Your task to perform on an android device: Open Wikipedia Image 0: 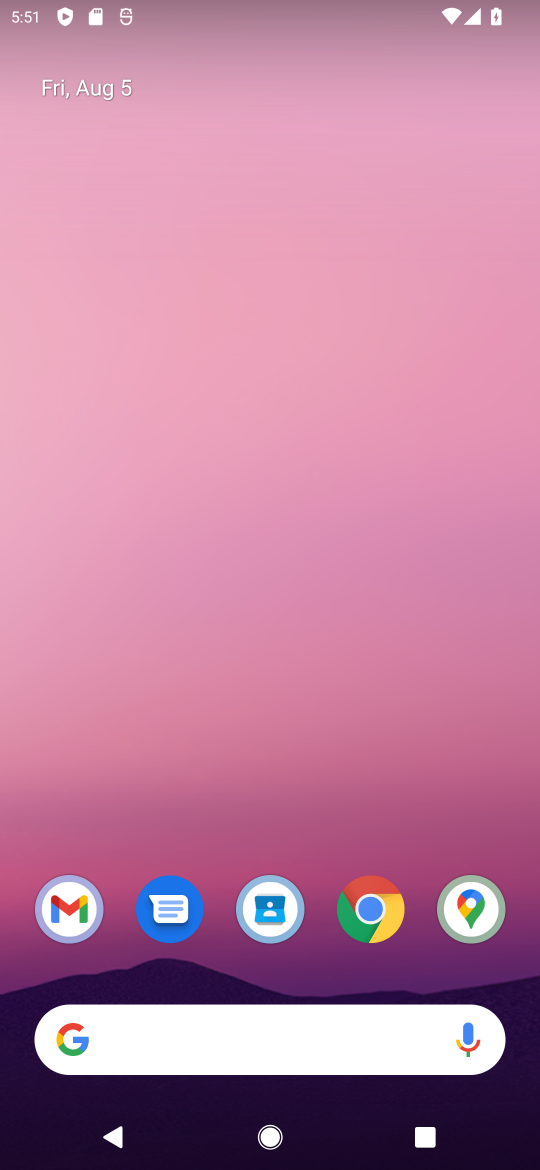
Step 0: press home button
Your task to perform on an android device: Open Wikipedia Image 1: 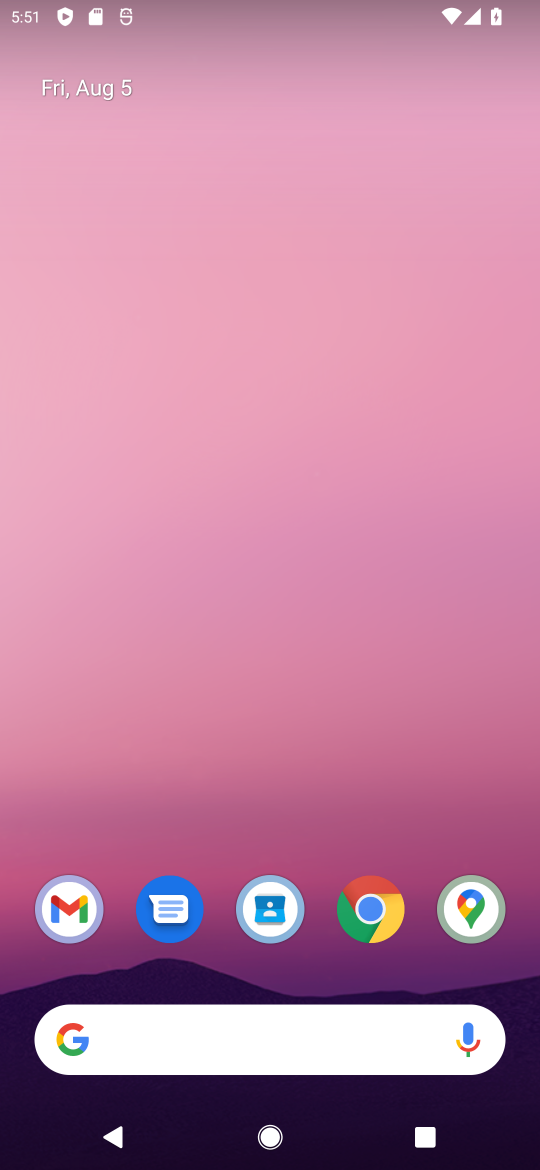
Step 1: click (58, 1032)
Your task to perform on an android device: Open Wikipedia Image 2: 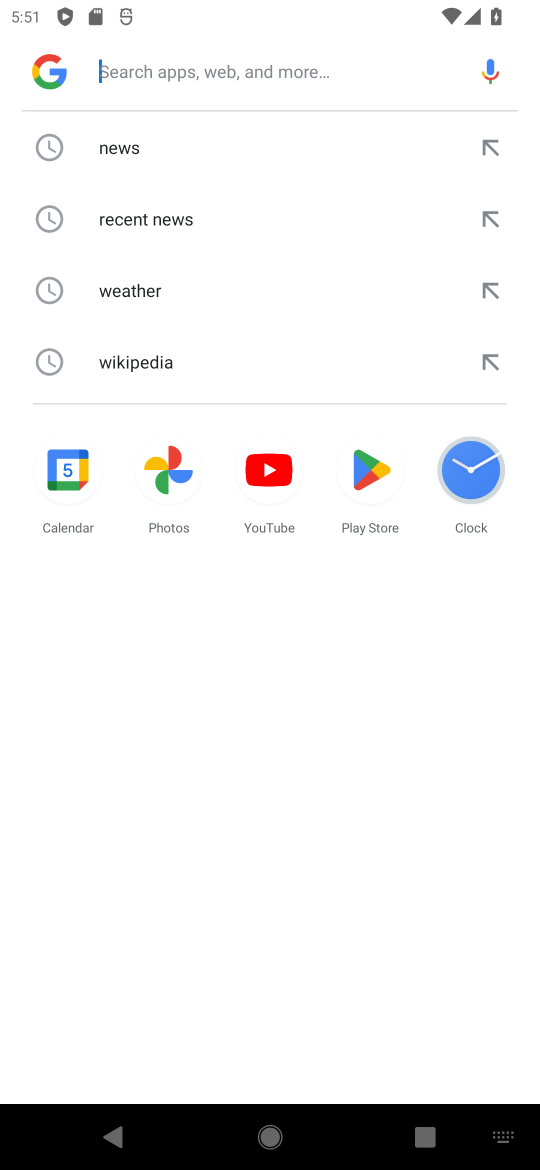
Step 2: click (149, 359)
Your task to perform on an android device: Open Wikipedia Image 3: 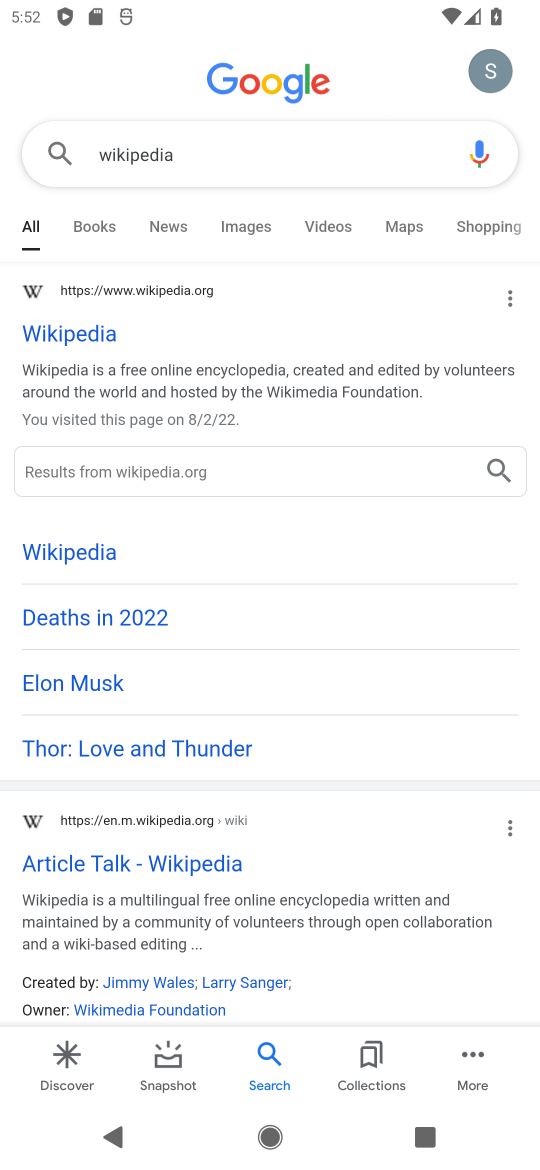
Step 3: click (70, 339)
Your task to perform on an android device: Open Wikipedia Image 4: 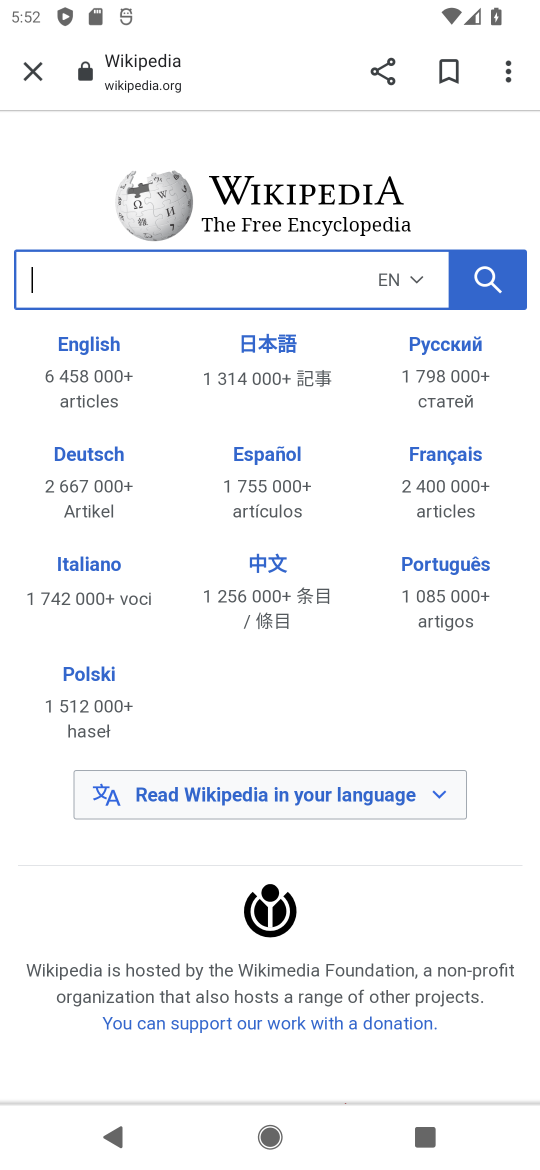
Step 4: task complete